Your task to perform on an android device: Go to accessibility settings Image 0: 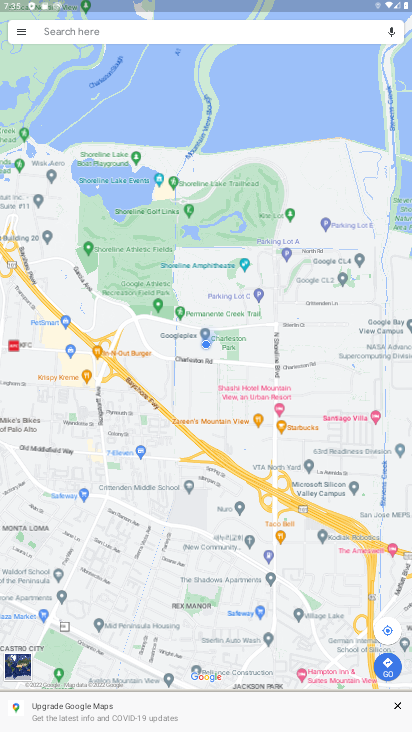
Step 0: press home button
Your task to perform on an android device: Go to accessibility settings Image 1: 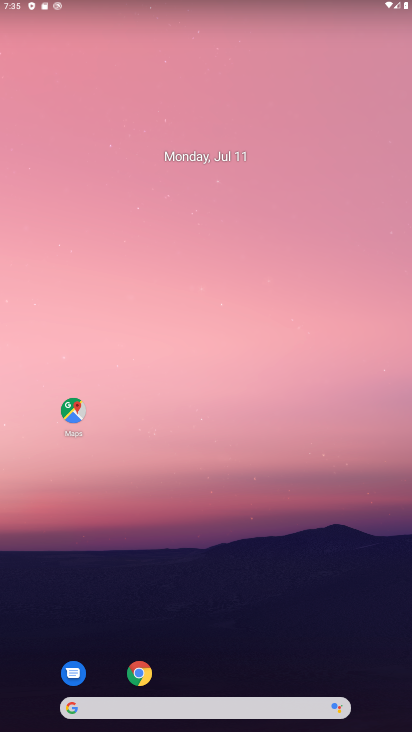
Step 1: drag from (128, 615) to (135, 187)
Your task to perform on an android device: Go to accessibility settings Image 2: 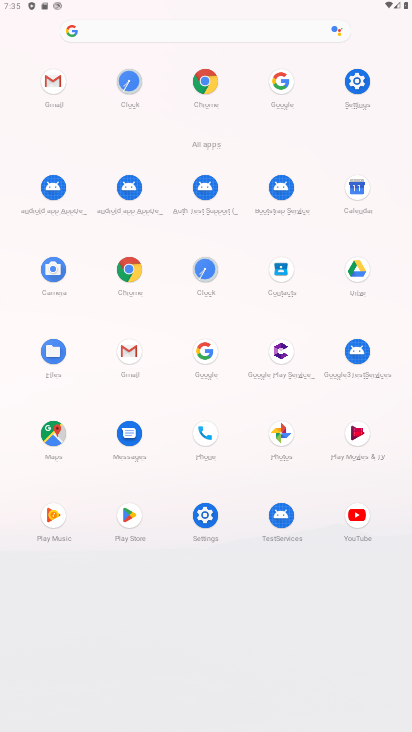
Step 2: click (343, 79)
Your task to perform on an android device: Go to accessibility settings Image 3: 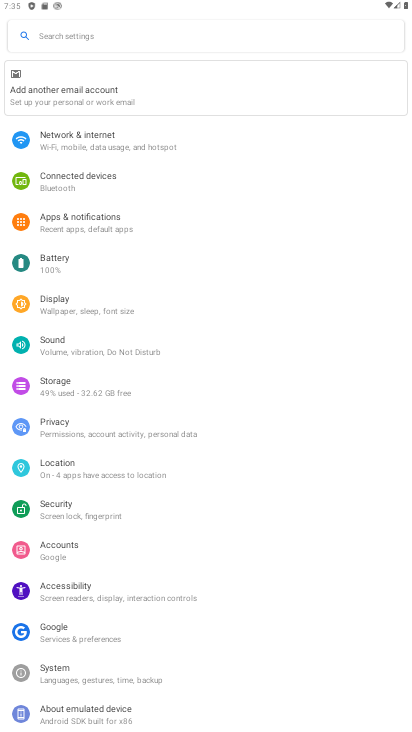
Step 3: click (109, 597)
Your task to perform on an android device: Go to accessibility settings Image 4: 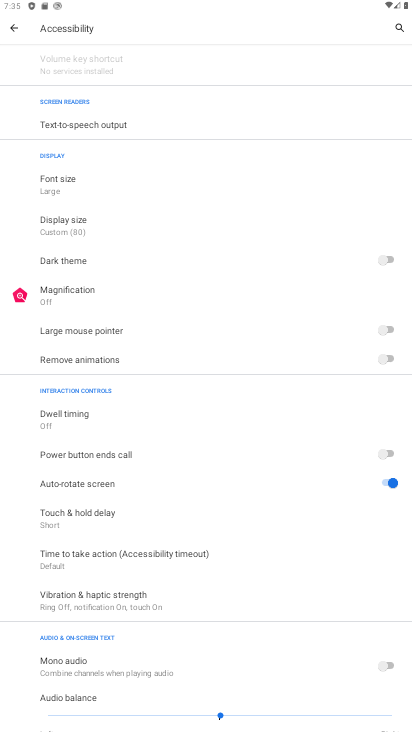
Step 4: task complete